Your task to perform on an android device: What time is it in Berlin? Image 0: 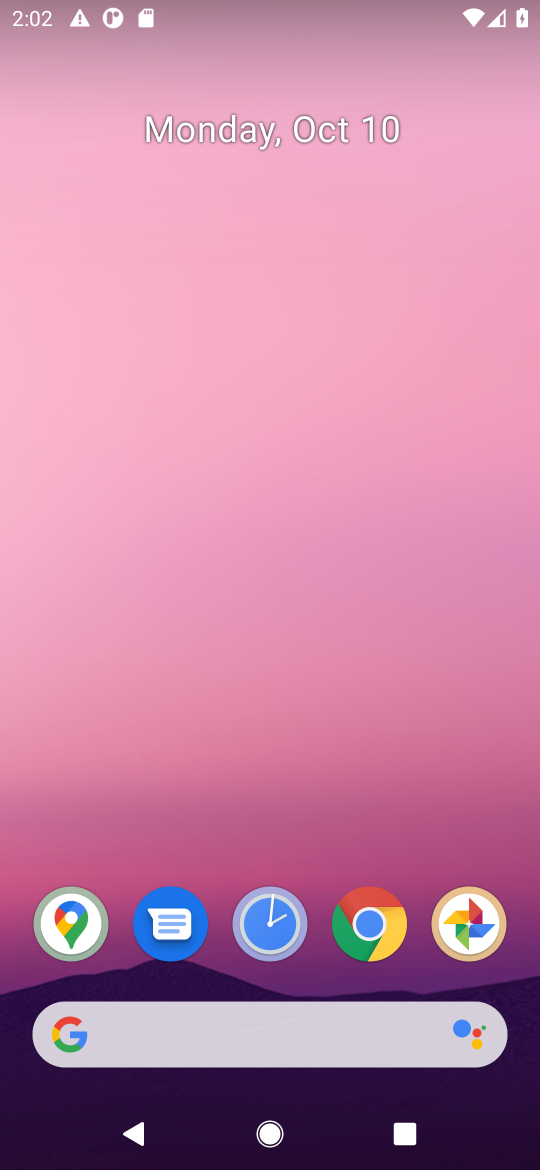
Step 0: click (363, 920)
Your task to perform on an android device: What time is it in Berlin? Image 1: 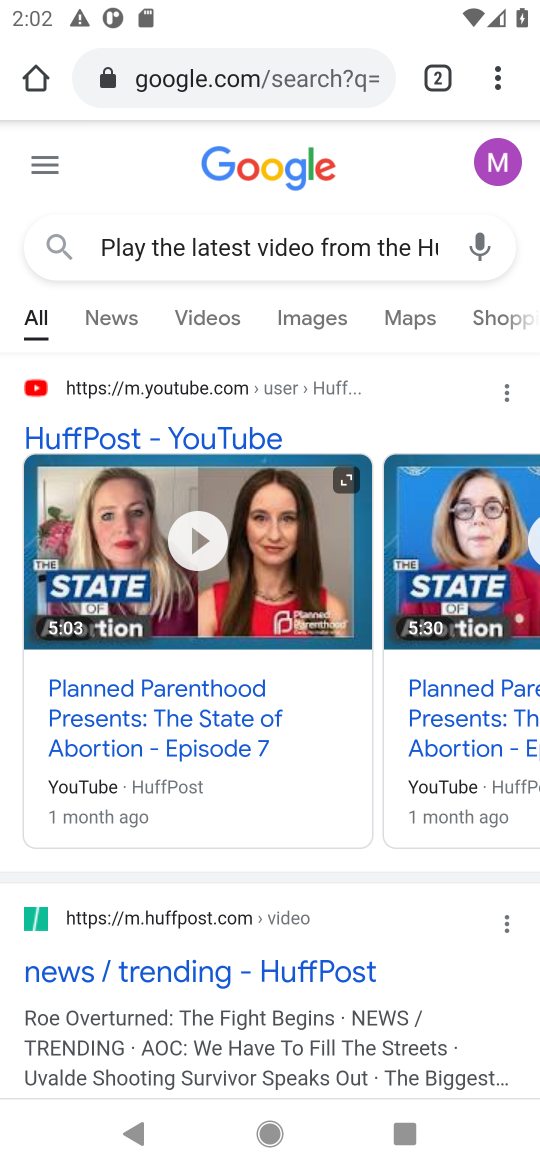
Step 1: click (315, 75)
Your task to perform on an android device: What time is it in Berlin? Image 2: 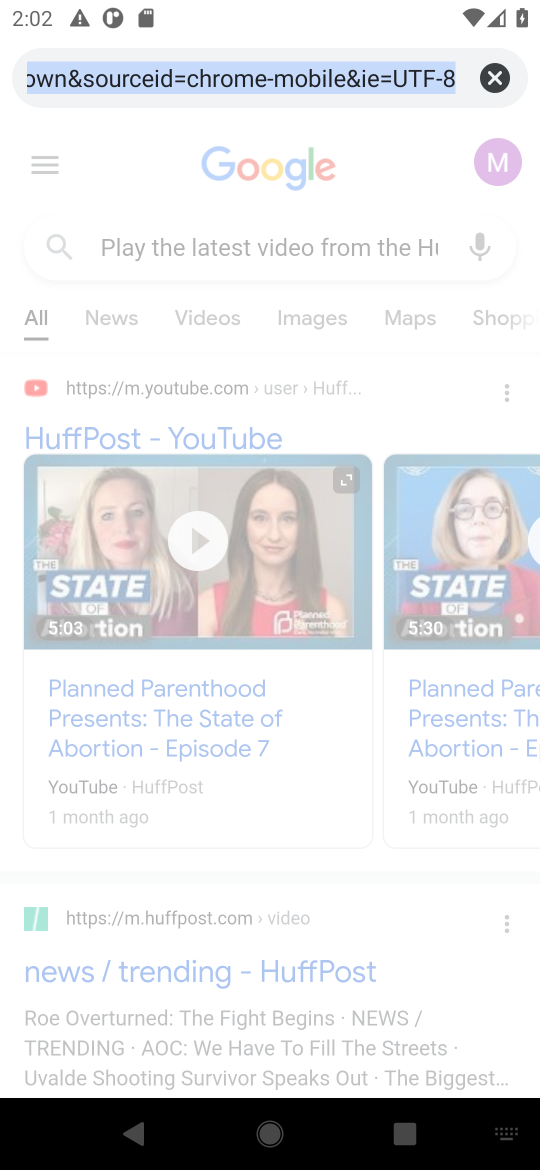
Step 2: click (490, 63)
Your task to perform on an android device: What time is it in Berlin? Image 3: 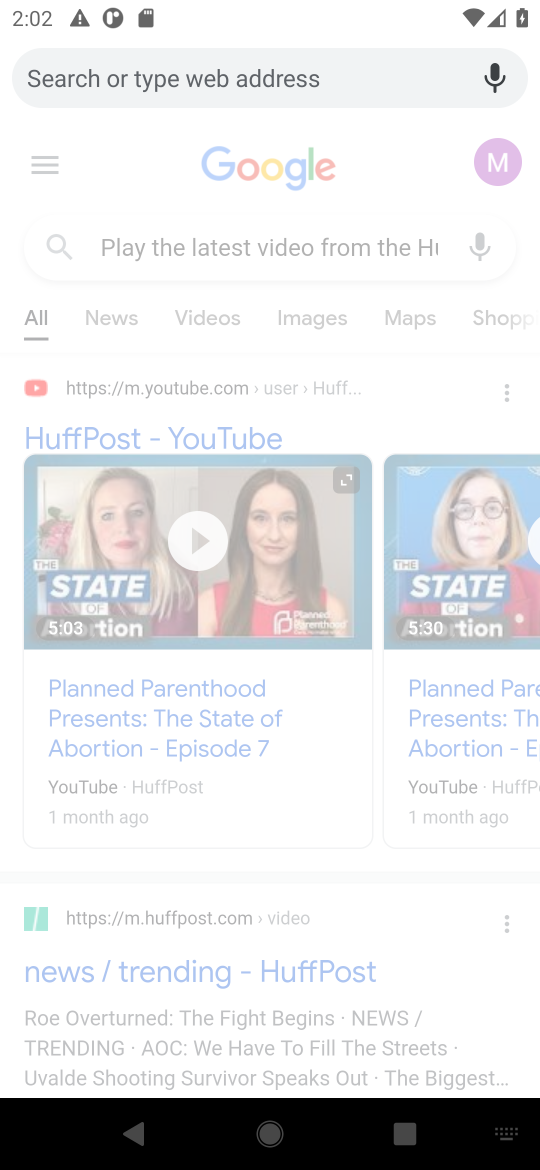
Step 3: type "What time is it in Berlin?"
Your task to perform on an android device: What time is it in Berlin? Image 4: 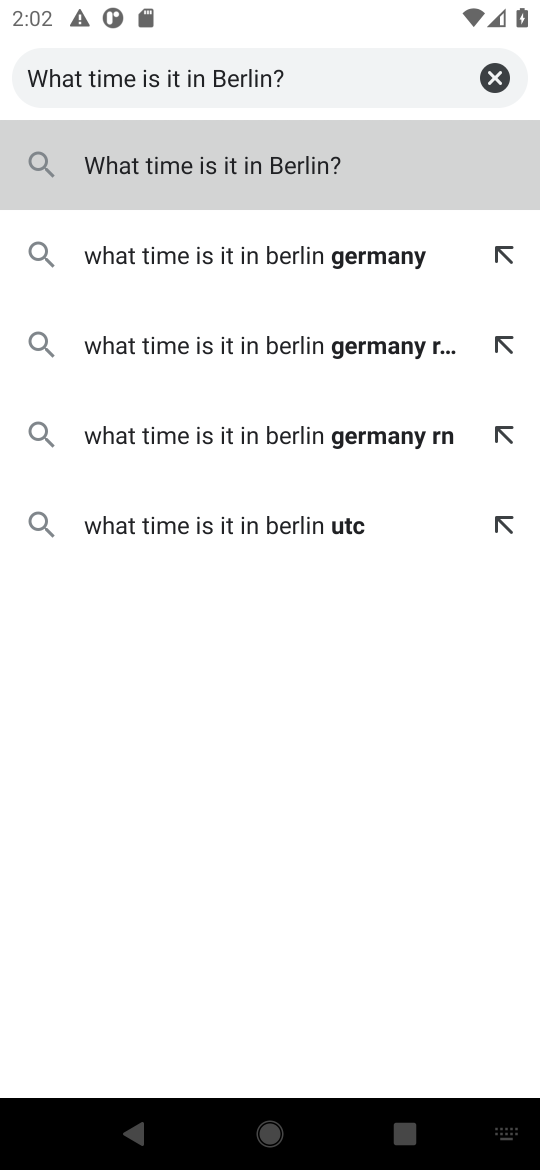
Step 4: click (278, 177)
Your task to perform on an android device: What time is it in Berlin? Image 5: 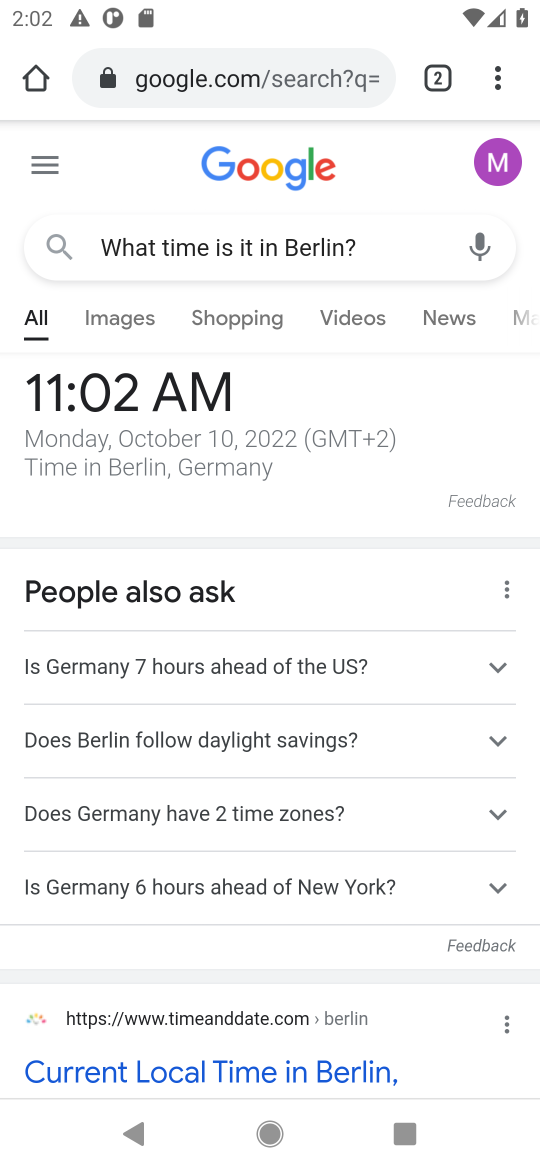
Step 5: task complete